Your task to perform on an android device: What's the weather going to be this weekend? Image 0: 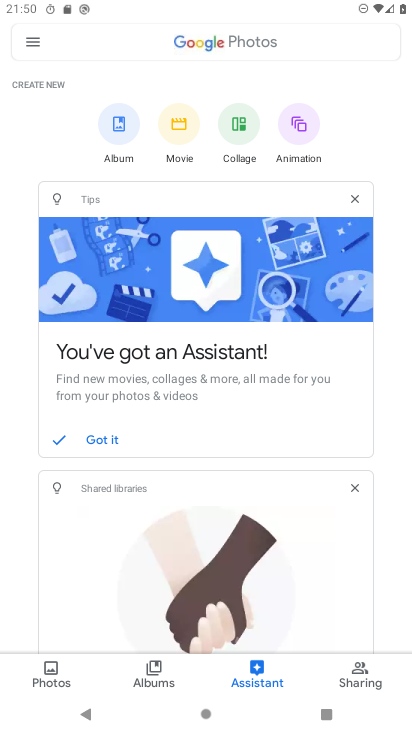
Step 0: press home button
Your task to perform on an android device: What's the weather going to be this weekend? Image 1: 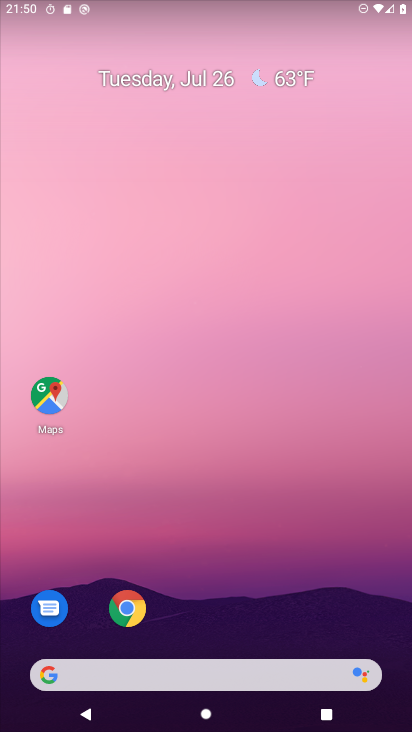
Step 1: click (107, 673)
Your task to perform on an android device: What's the weather going to be this weekend? Image 2: 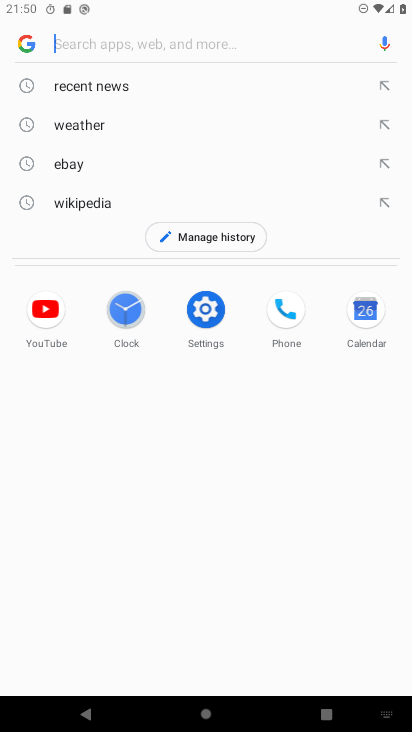
Step 2: type "What's the weather going to be this weekend?"
Your task to perform on an android device: What's the weather going to be this weekend? Image 3: 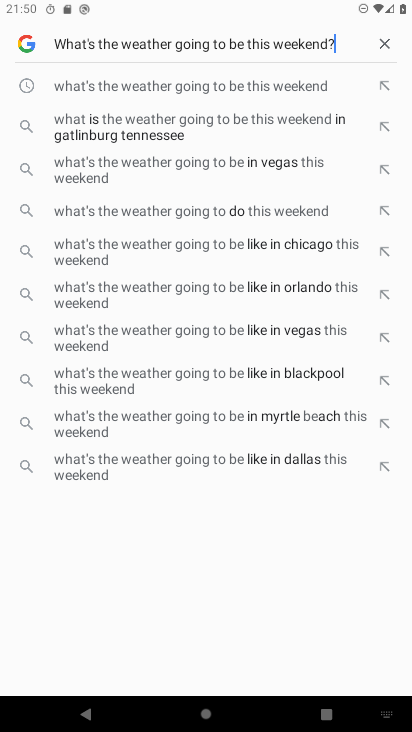
Step 3: type ""
Your task to perform on an android device: What's the weather going to be this weekend? Image 4: 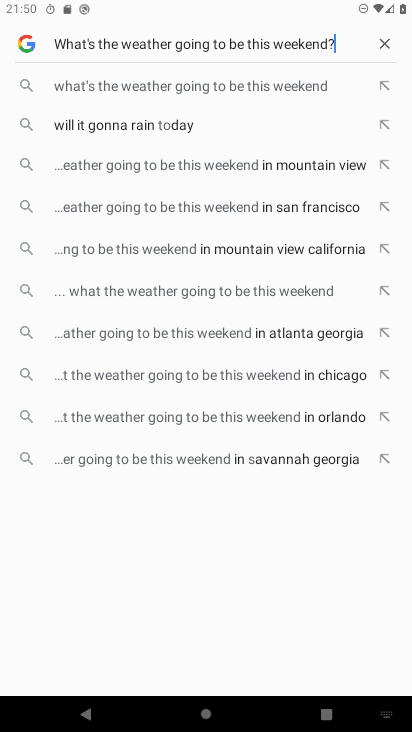
Step 4: type ""
Your task to perform on an android device: What's the weather going to be this weekend? Image 5: 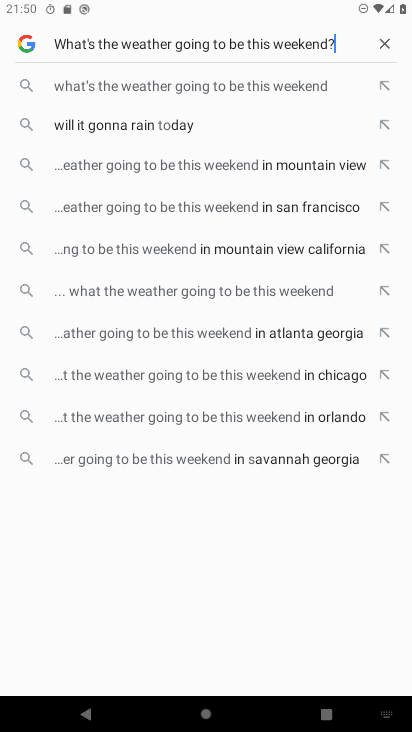
Step 5: task complete